Your task to perform on an android device: Go to calendar. Show me events next week Image 0: 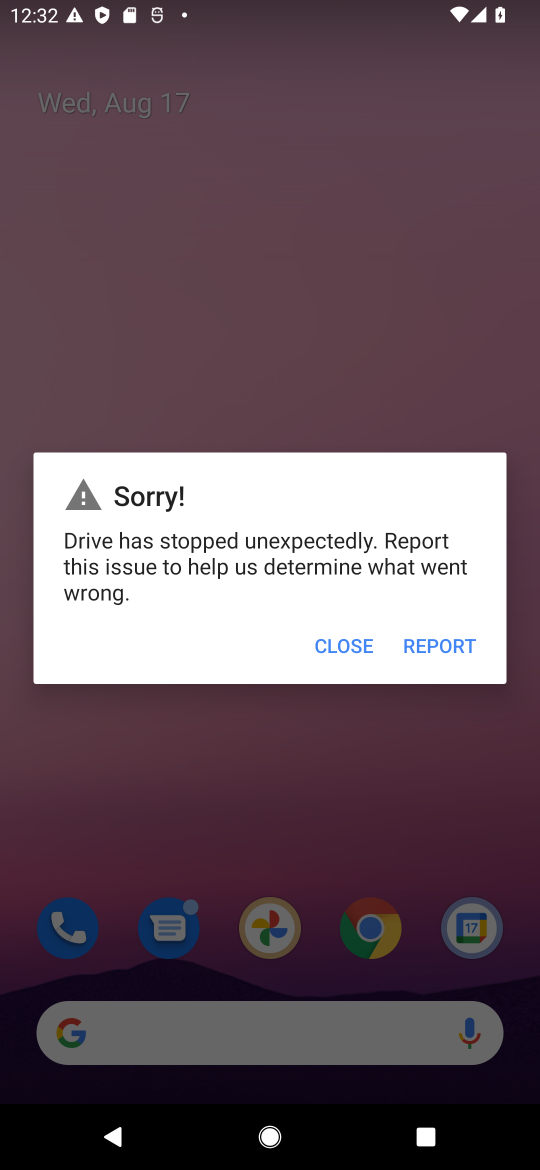
Step 0: press home button
Your task to perform on an android device: Go to calendar. Show me events next week Image 1: 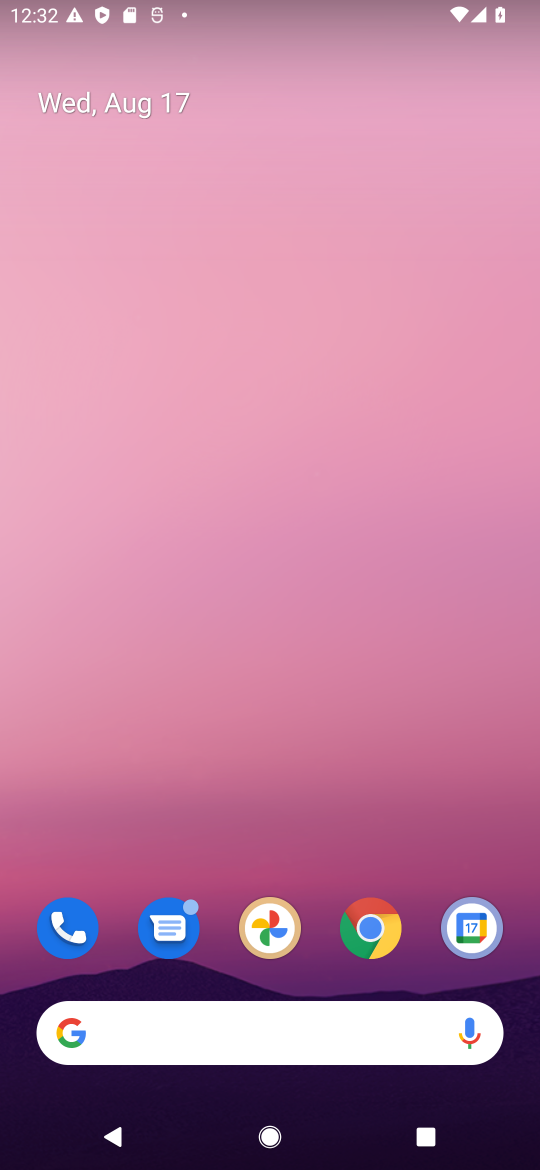
Step 1: drag from (290, 832) to (301, 222)
Your task to perform on an android device: Go to calendar. Show me events next week Image 2: 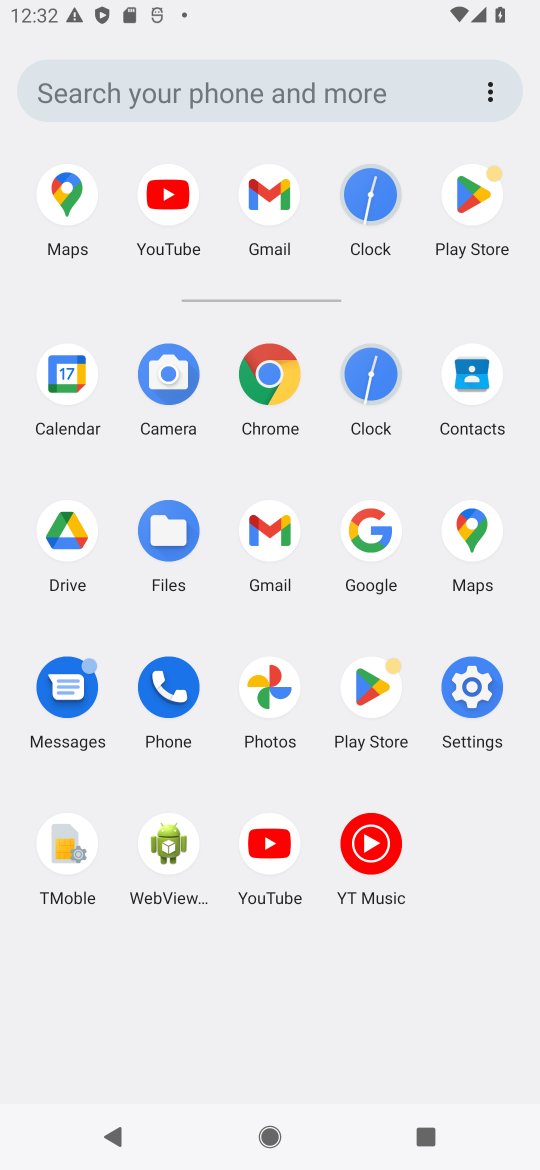
Step 2: click (45, 380)
Your task to perform on an android device: Go to calendar. Show me events next week Image 3: 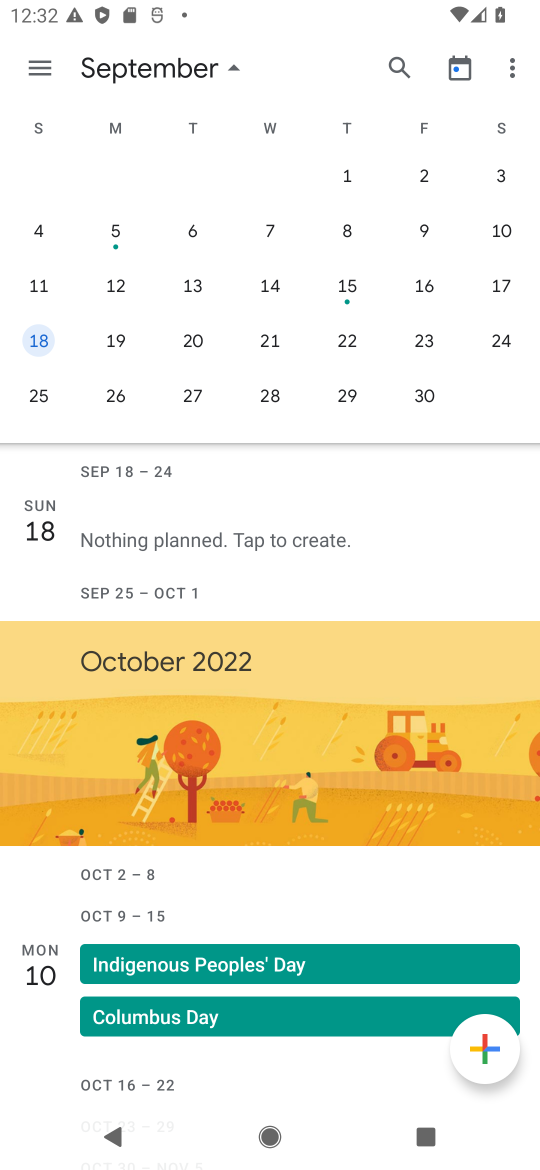
Step 3: drag from (72, 260) to (458, 262)
Your task to perform on an android device: Go to calendar. Show me events next week Image 4: 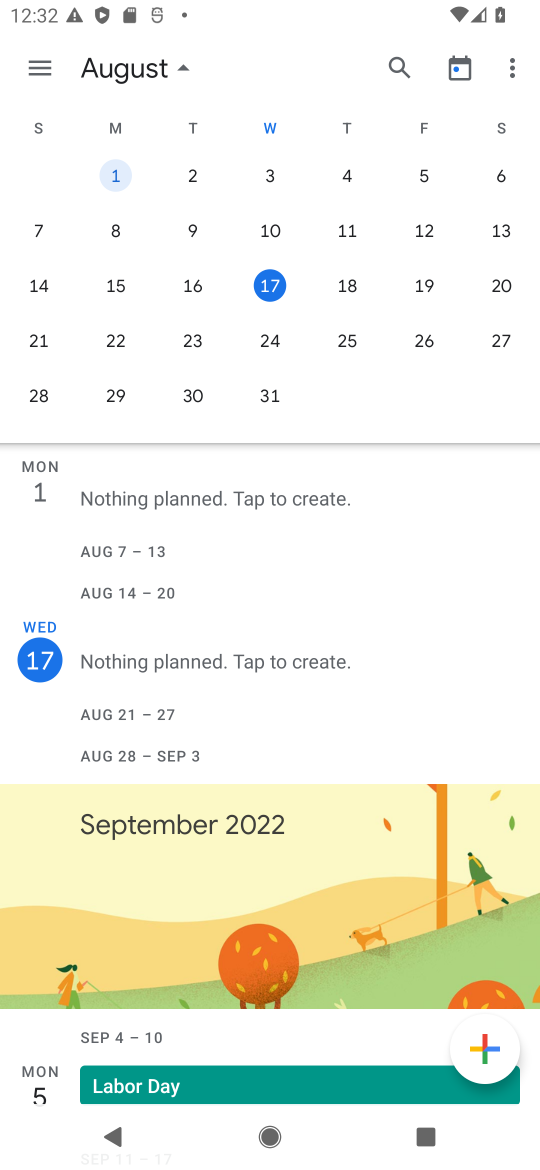
Step 4: click (46, 331)
Your task to perform on an android device: Go to calendar. Show me events next week Image 5: 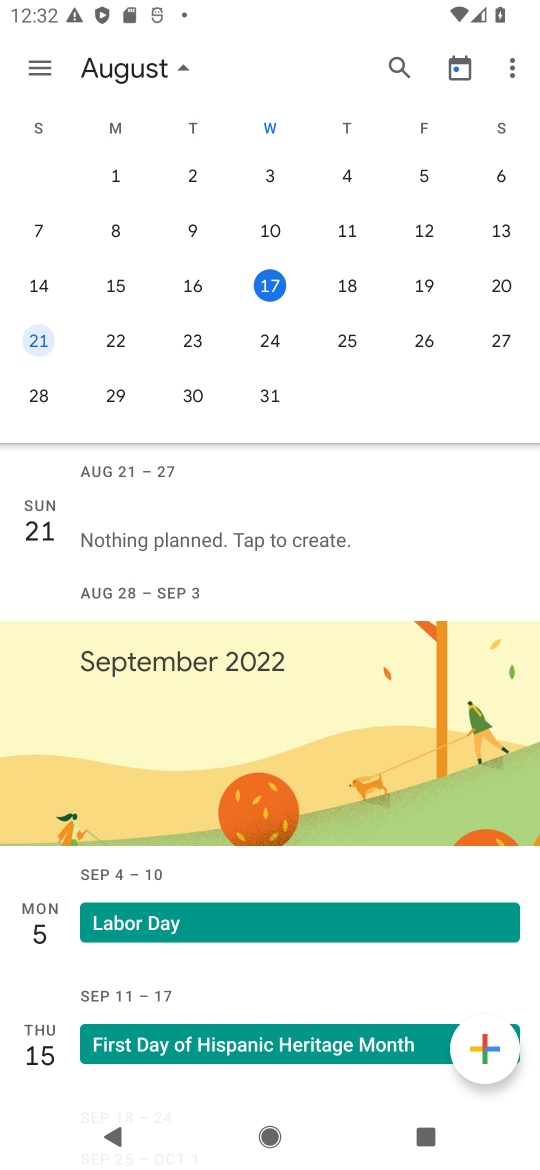
Step 5: task complete